Your task to perform on an android device: open app "Clock" (install if not already installed) Image 0: 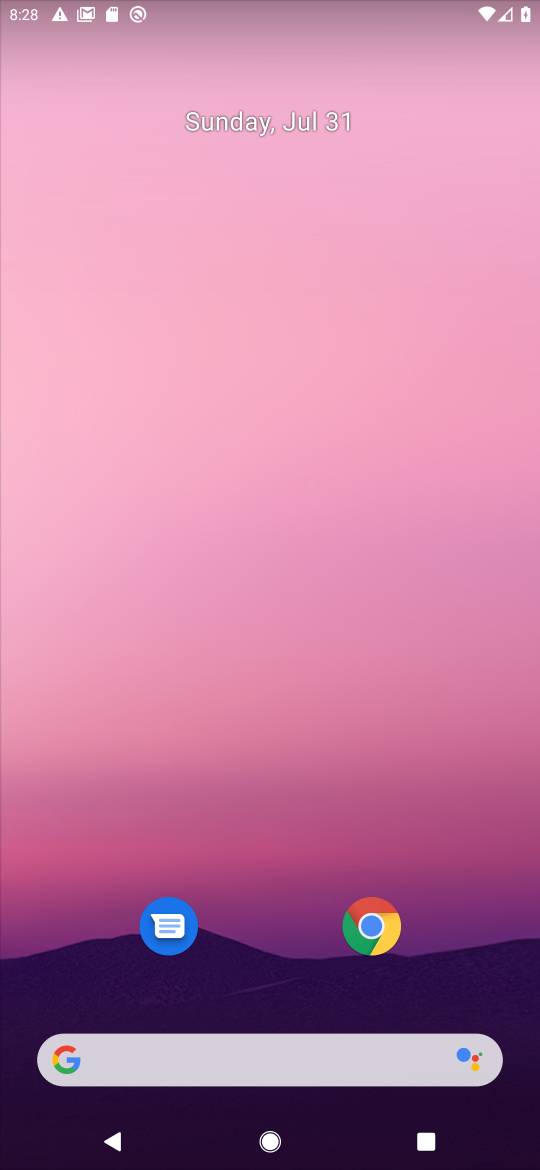
Step 0: drag from (299, 841) to (82, 38)
Your task to perform on an android device: open app "Clock" (install if not already installed) Image 1: 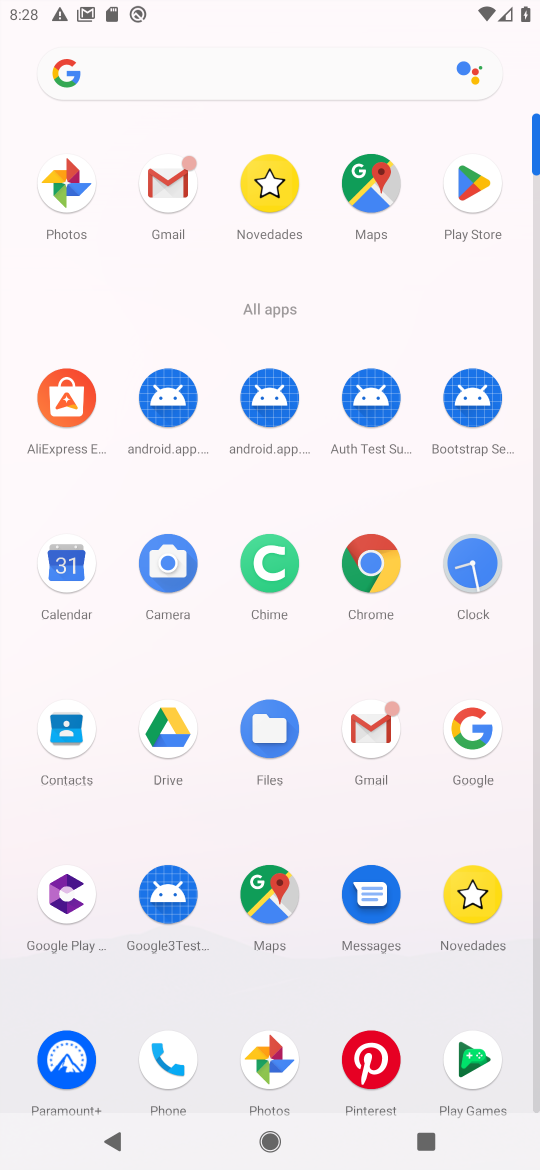
Step 1: click (471, 585)
Your task to perform on an android device: open app "Clock" (install if not already installed) Image 2: 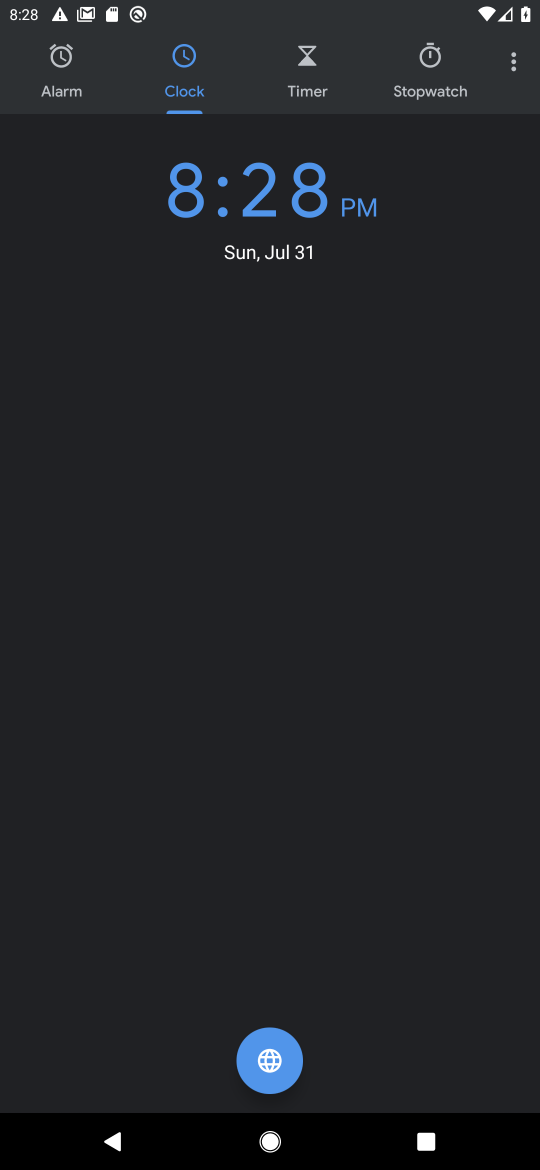
Step 2: task complete